Your task to perform on an android device: Open calendar and show me the first week of next month Image 0: 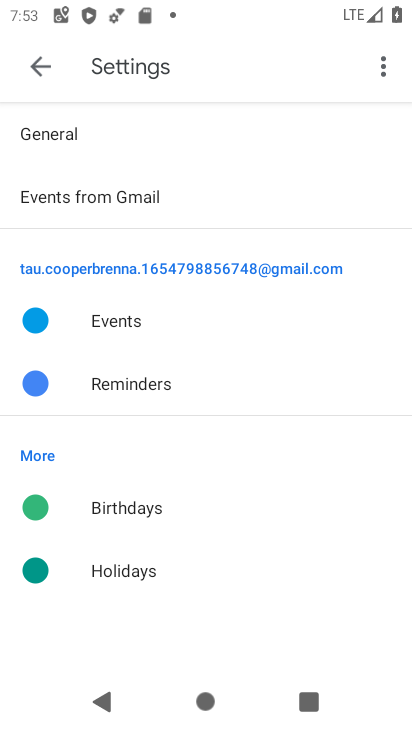
Step 0: press home button
Your task to perform on an android device: Open calendar and show me the first week of next month Image 1: 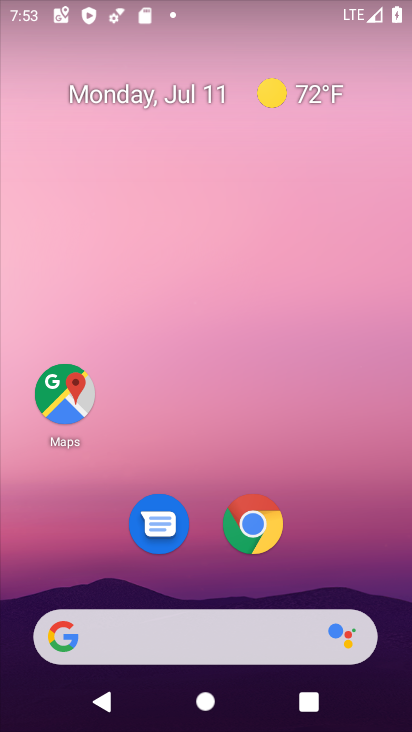
Step 1: drag from (326, 557) to (326, 40)
Your task to perform on an android device: Open calendar and show me the first week of next month Image 2: 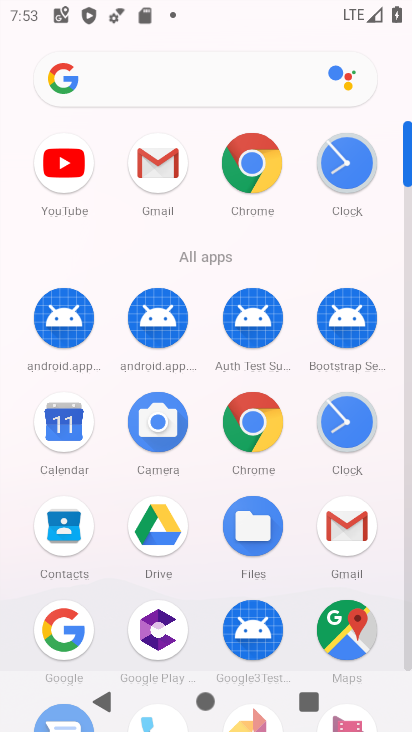
Step 2: click (72, 426)
Your task to perform on an android device: Open calendar and show me the first week of next month Image 3: 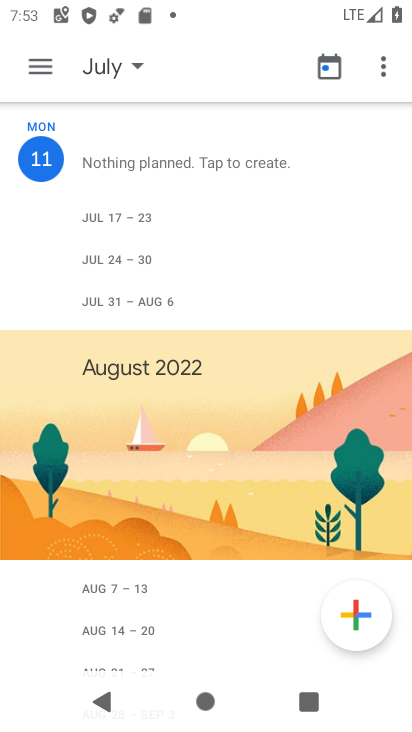
Step 3: click (32, 57)
Your task to perform on an android device: Open calendar and show me the first week of next month Image 4: 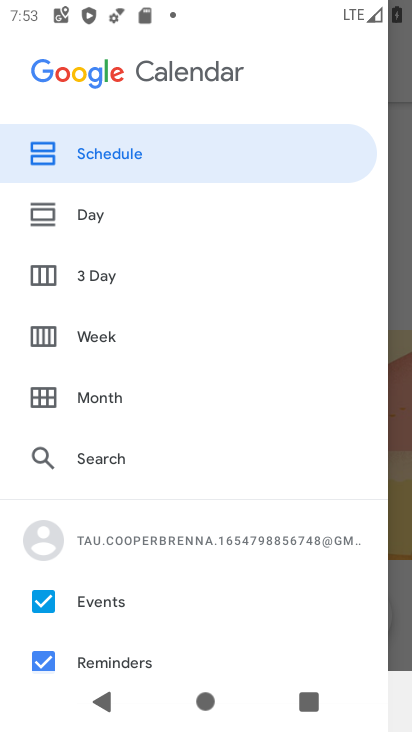
Step 4: click (49, 395)
Your task to perform on an android device: Open calendar and show me the first week of next month Image 5: 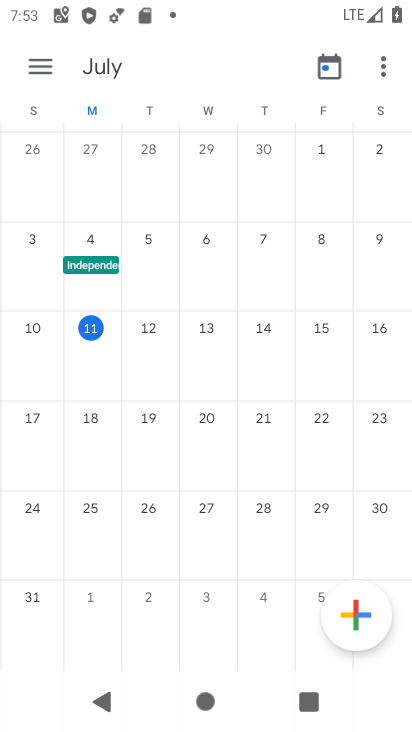
Step 5: drag from (330, 453) to (3, 443)
Your task to perform on an android device: Open calendar and show me the first week of next month Image 6: 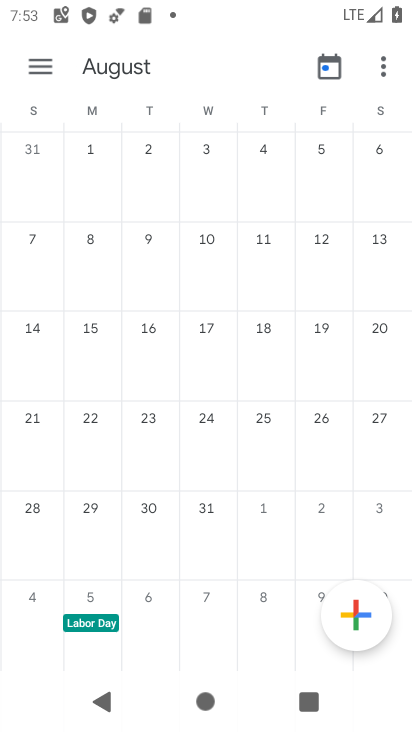
Step 6: click (34, 244)
Your task to perform on an android device: Open calendar and show me the first week of next month Image 7: 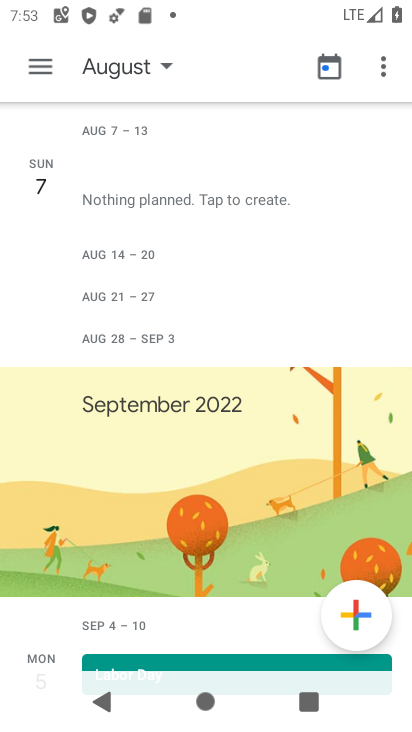
Step 7: click (36, 71)
Your task to perform on an android device: Open calendar and show me the first week of next month Image 8: 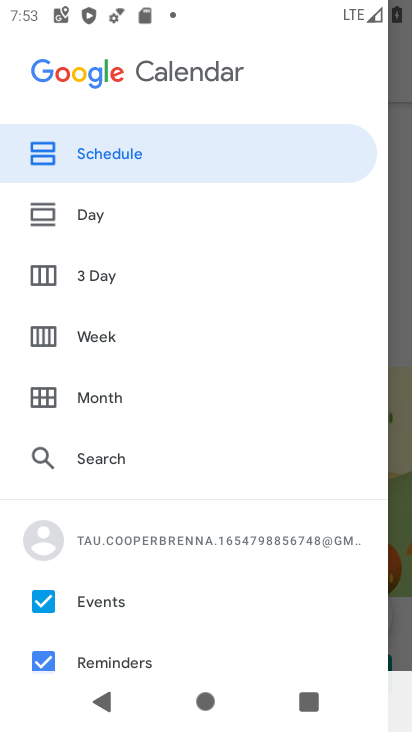
Step 8: click (79, 331)
Your task to perform on an android device: Open calendar and show me the first week of next month Image 9: 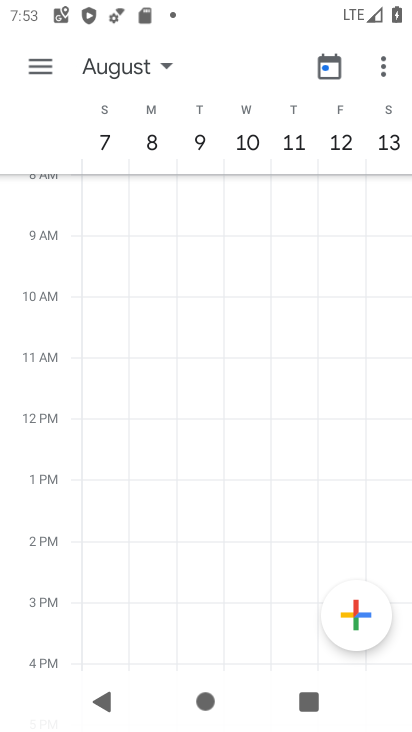
Step 9: task complete